Your task to perform on an android device: add a contact Image 0: 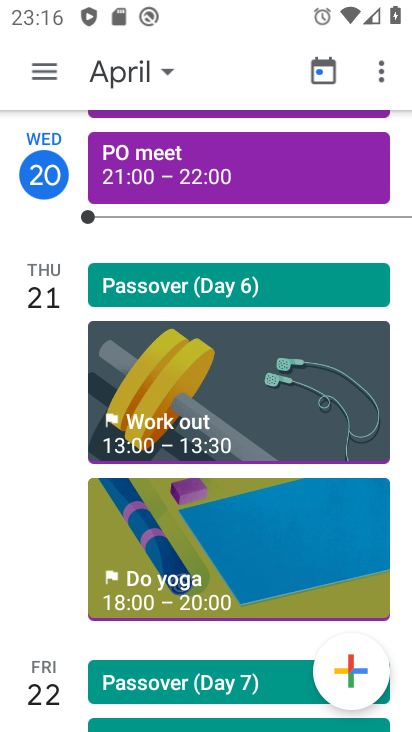
Step 0: press home button
Your task to perform on an android device: add a contact Image 1: 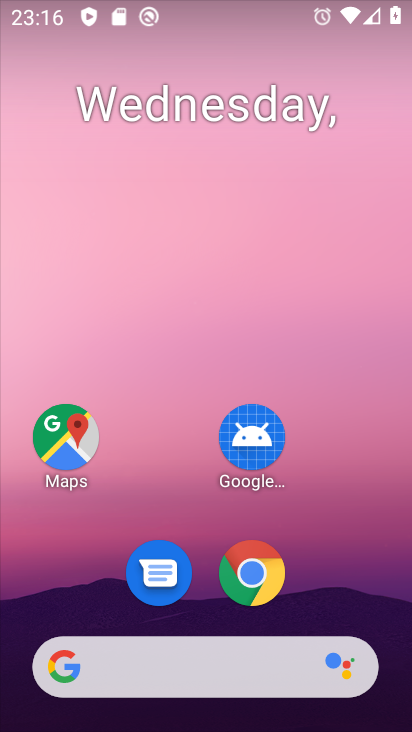
Step 1: drag from (159, 488) to (197, 41)
Your task to perform on an android device: add a contact Image 2: 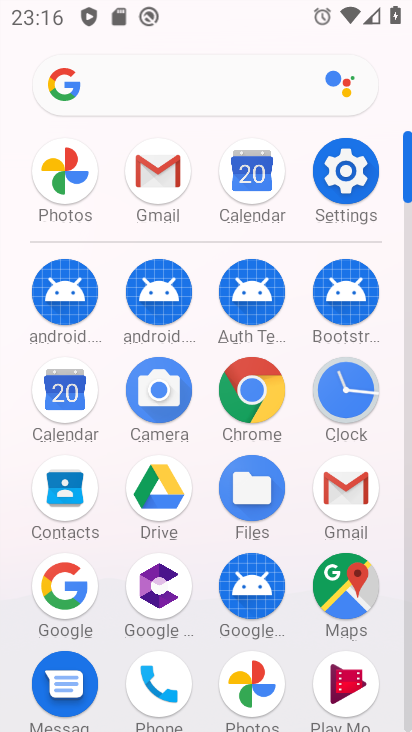
Step 2: click (64, 487)
Your task to perform on an android device: add a contact Image 3: 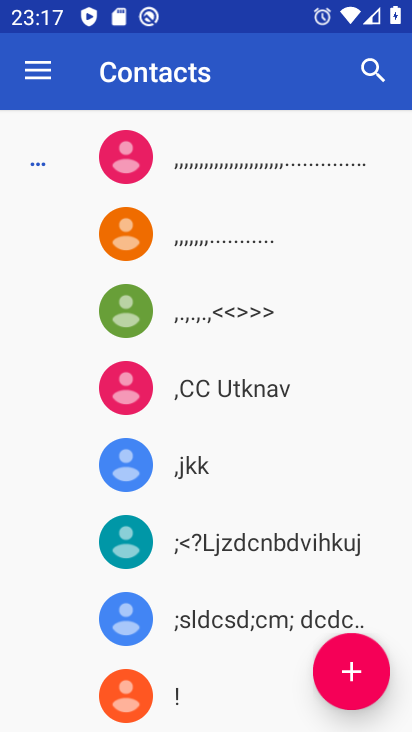
Step 3: click (349, 671)
Your task to perform on an android device: add a contact Image 4: 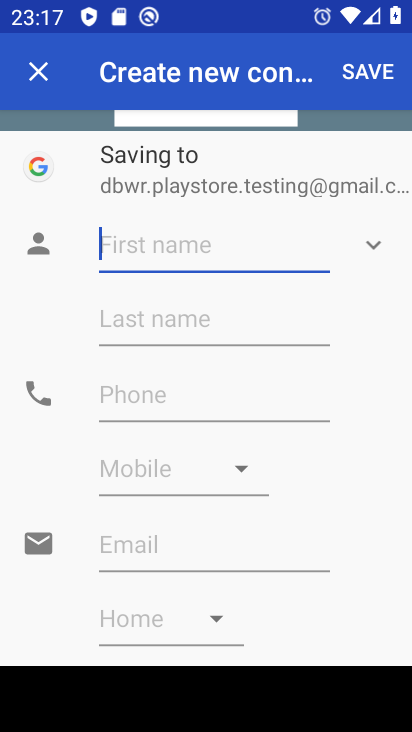
Step 4: click (215, 247)
Your task to perform on an android device: add a contact Image 5: 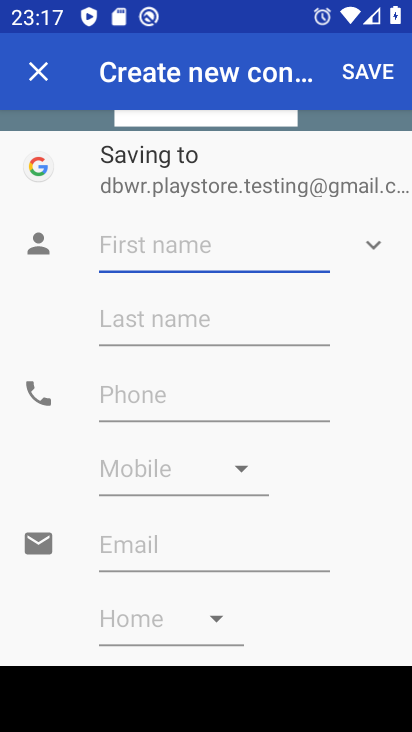
Step 5: type "Konduppam"
Your task to perform on an android device: add a contact Image 6: 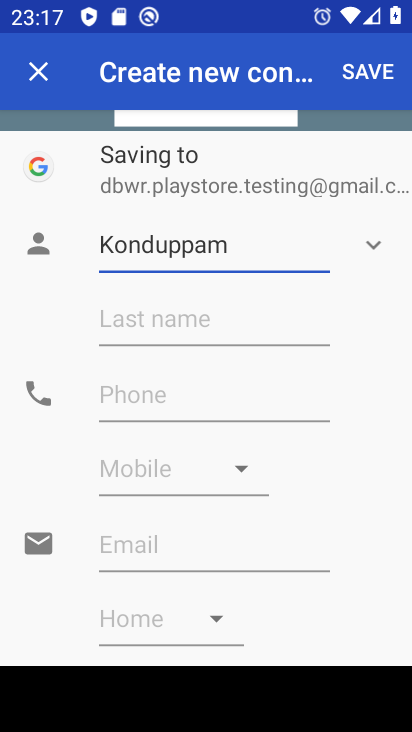
Step 6: click (221, 325)
Your task to perform on an android device: add a contact Image 7: 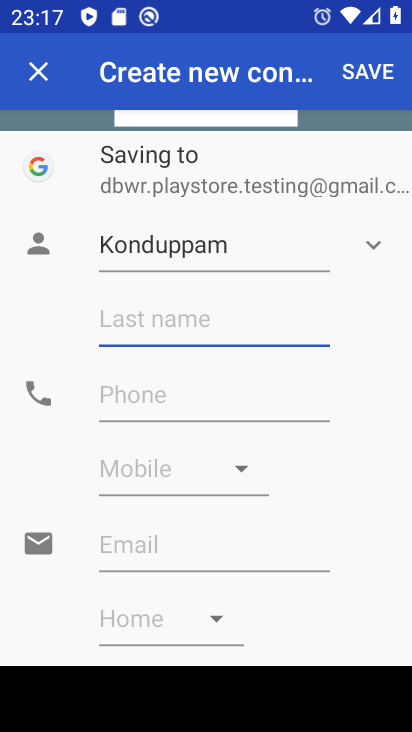
Step 7: type "Sarwappaallii"
Your task to perform on an android device: add a contact Image 8: 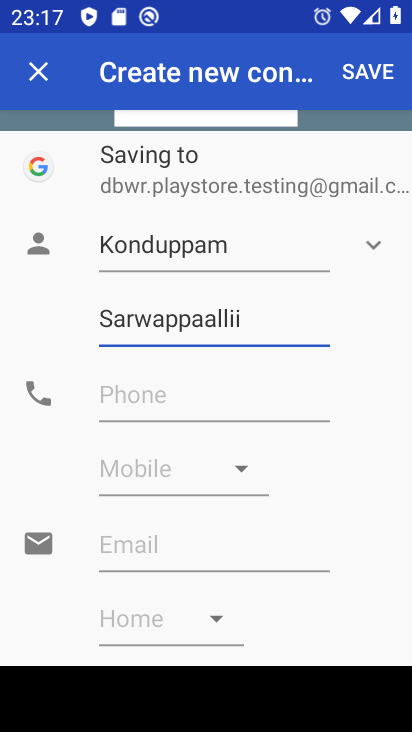
Step 8: click (207, 378)
Your task to perform on an android device: add a contact Image 9: 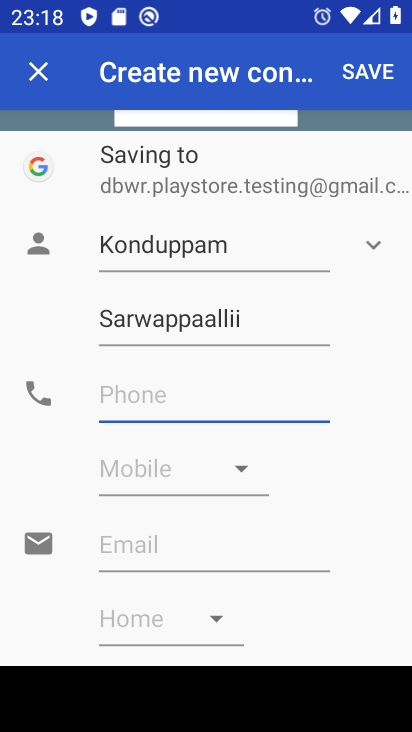
Step 9: type "0998877665544"
Your task to perform on an android device: add a contact Image 10: 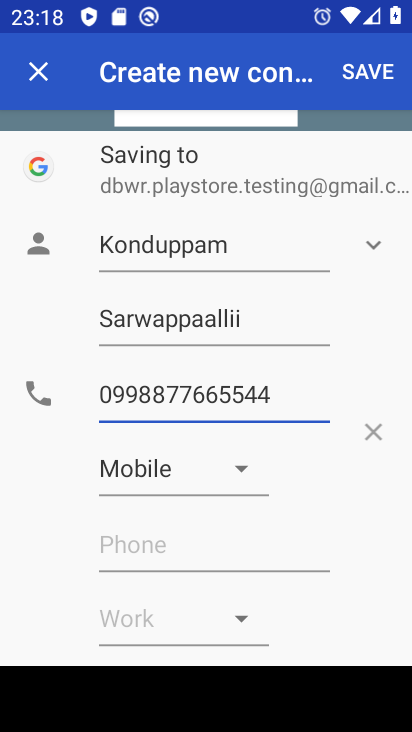
Step 10: click (384, 74)
Your task to perform on an android device: add a contact Image 11: 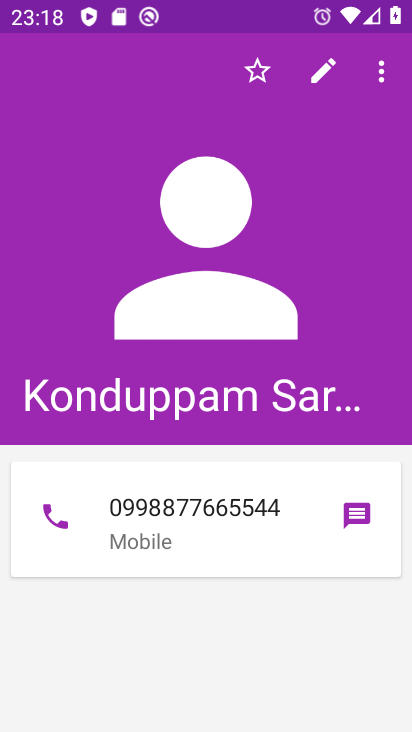
Step 11: task complete